Your task to perform on an android device: all mails in gmail Image 0: 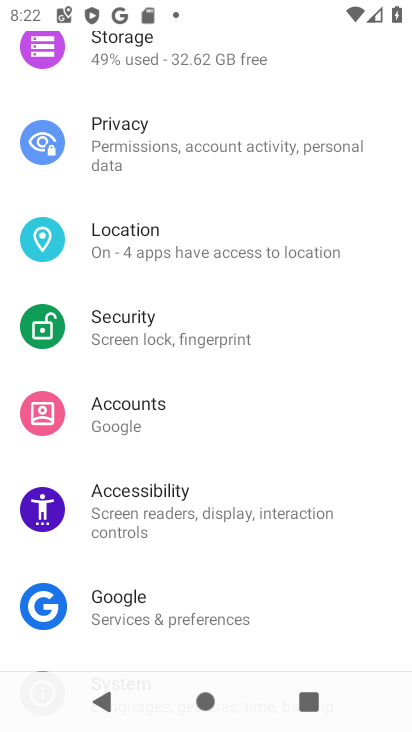
Step 0: press home button
Your task to perform on an android device: all mails in gmail Image 1: 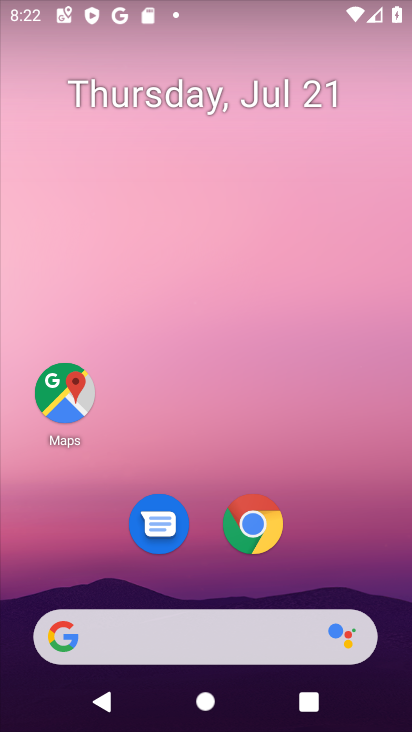
Step 1: drag from (196, 596) to (255, 121)
Your task to perform on an android device: all mails in gmail Image 2: 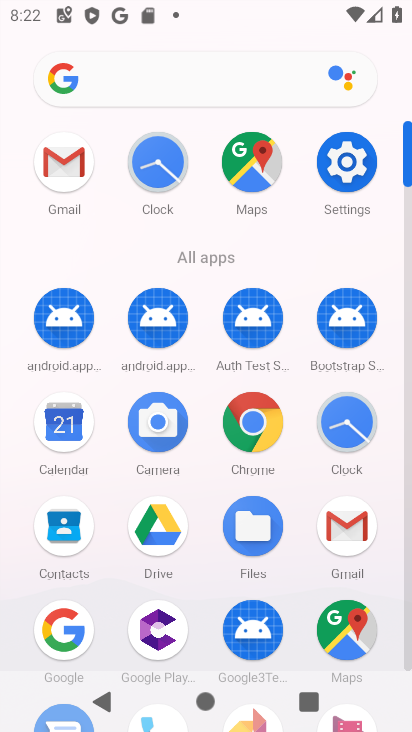
Step 2: click (63, 174)
Your task to perform on an android device: all mails in gmail Image 3: 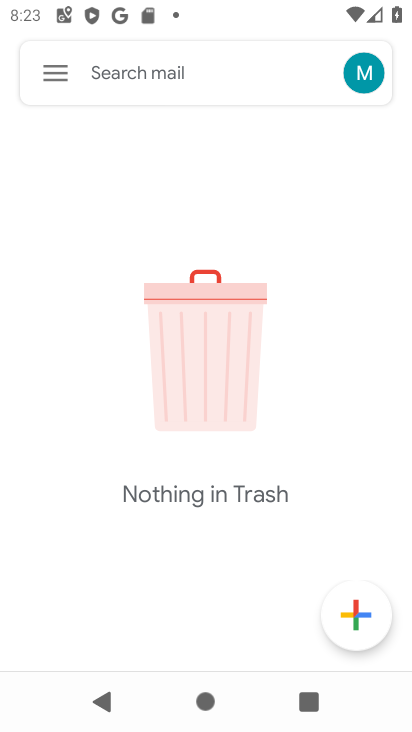
Step 3: click (57, 67)
Your task to perform on an android device: all mails in gmail Image 4: 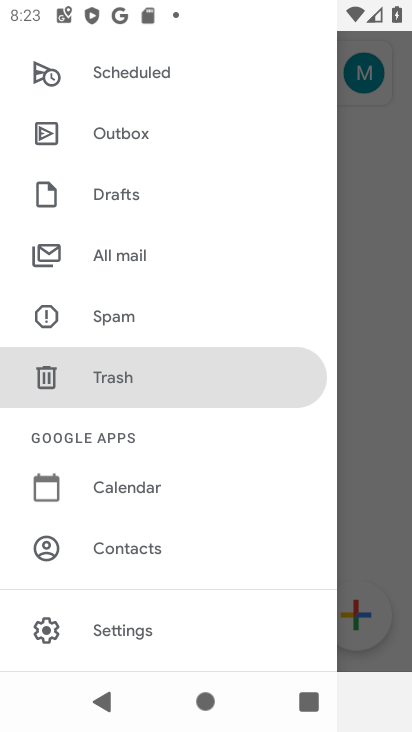
Step 4: click (119, 249)
Your task to perform on an android device: all mails in gmail Image 5: 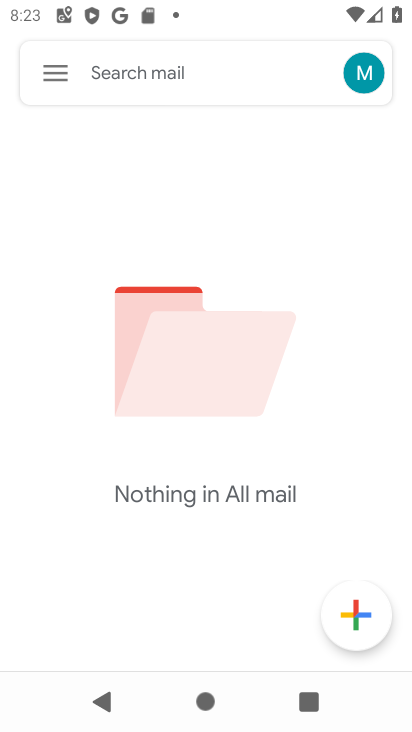
Step 5: task complete